Your task to perform on an android device: Find coffee shops on Maps Image 0: 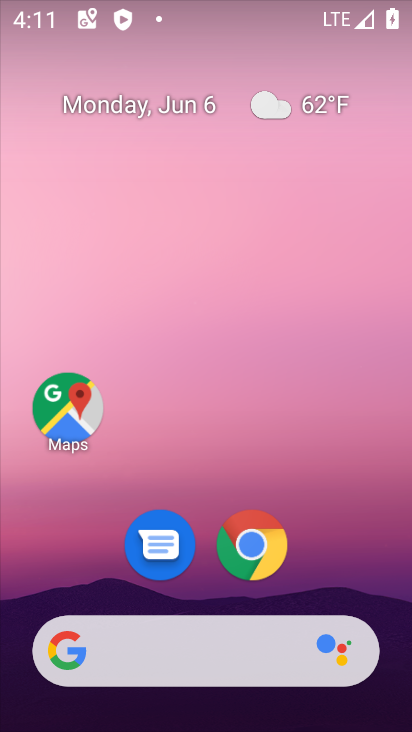
Step 0: drag from (194, 728) to (194, 156)
Your task to perform on an android device: Find coffee shops on Maps Image 1: 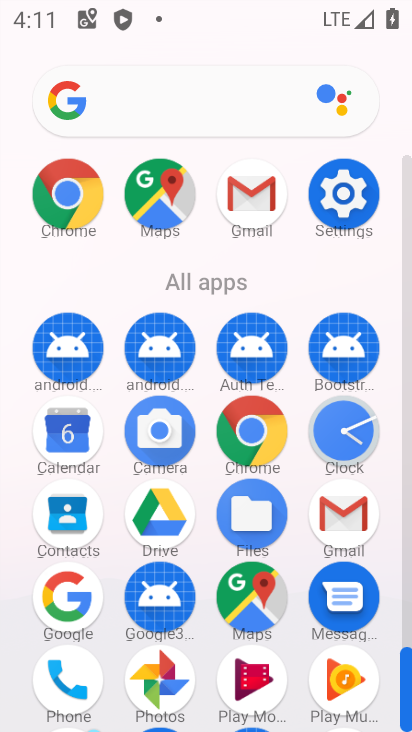
Step 1: click (239, 599)
Your task to perform on an android device: Find coffee shops on Maps Image 2: 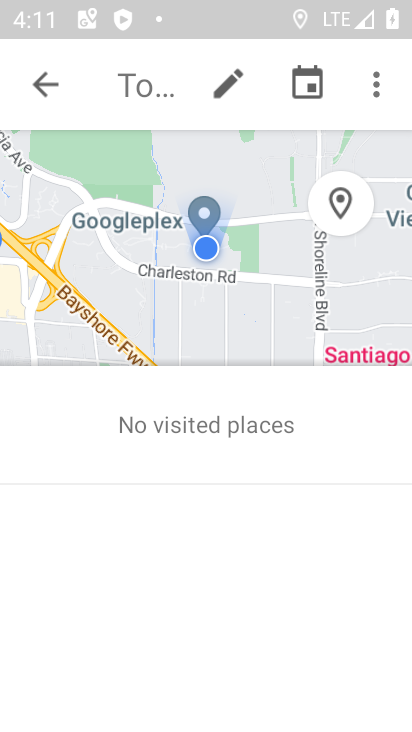
Step 2: click (48, 87)
Your task to perform on an android device: Find coffee shops on Maps Image 3: 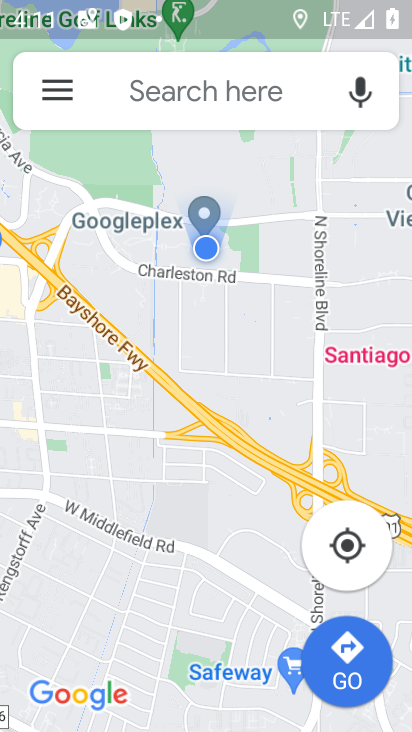
Step 3: click (193, 95)
Your task to perform on an android device: Find coffee shops on Maps Image 4: 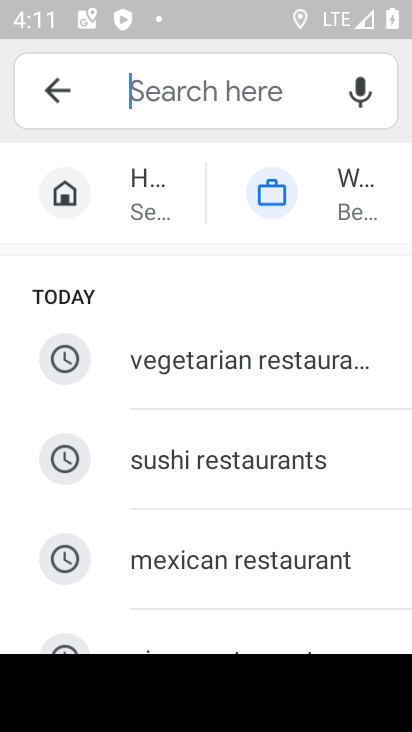
Step 4: type "coffee shops"
Your task to perform on an android device: Find coffee shops on Maps Image 5: 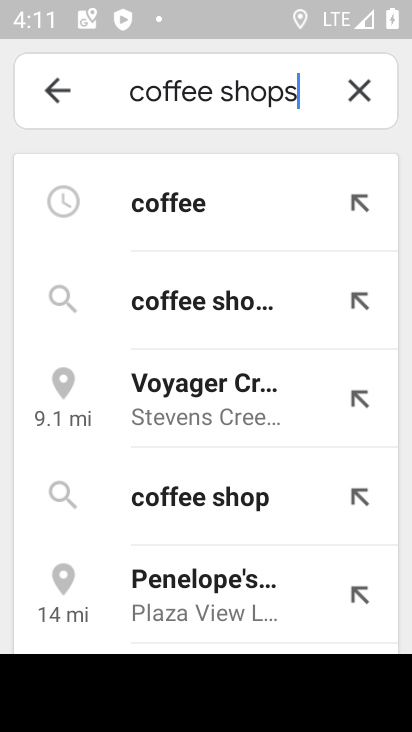
Step 5: click (177, 207)
Your task to perform on an android device: Find coffee shops on Maps Image 6: 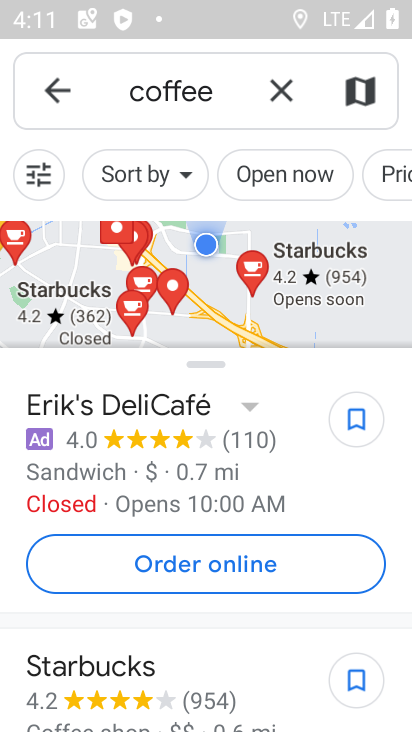
Step 6: task complete